Your task to perform on an android device: check the backup settings in the google photos Image 0: 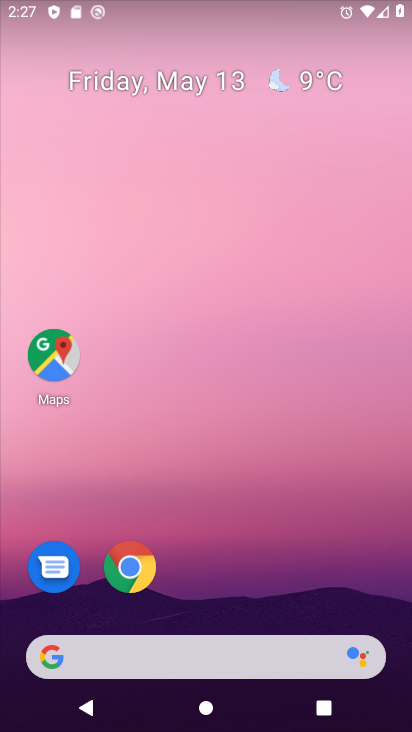
Step 0: drag from (197, 537) to (296, 45)
Your task to perform on an android device: check the backup settings in the google photos Image 1: 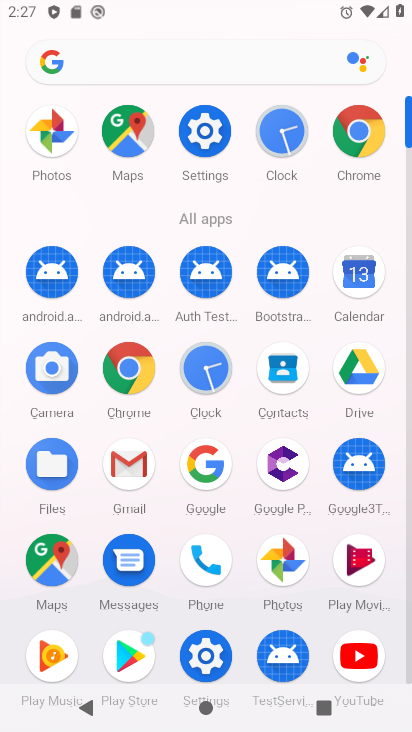
Step 1: click (289, 551)
Your task to perform on an android device: check the backup settings in the google photos Image 2: 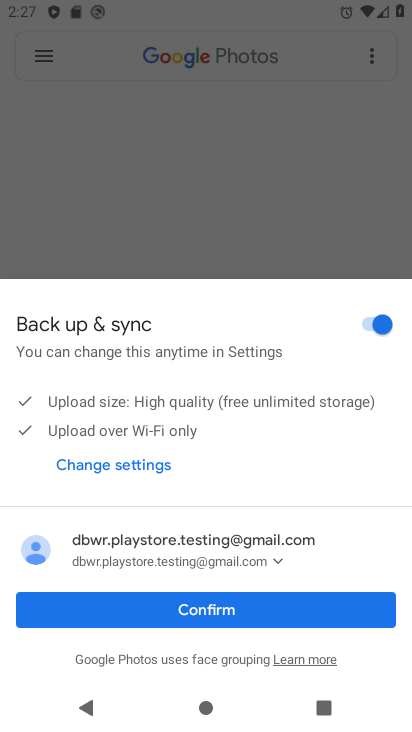
Step 2: click (261, 614)
Your task to perform on an android device: check the backup settings in the google photos Image 3: 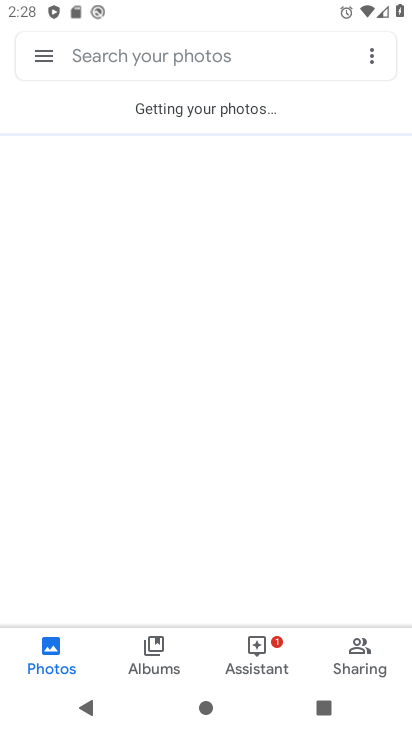
Step 3: click (49, 54)
Your task to perform on an android device: check the backup settings in the google photos Image 4: 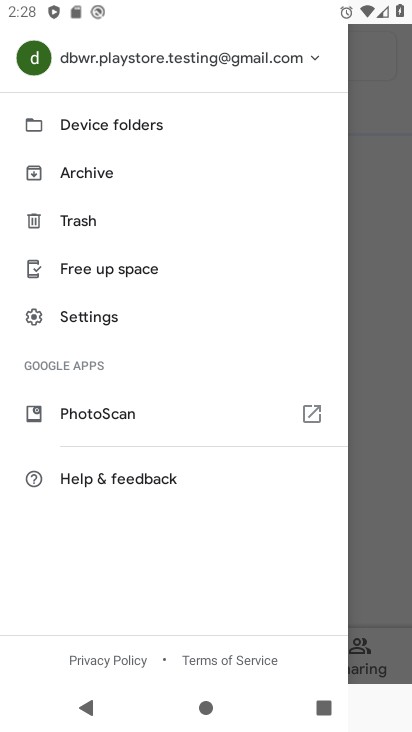
Step 4: click (100, 326)
Your task to perform on an android device: check the backup settings in the google photos Image 5: 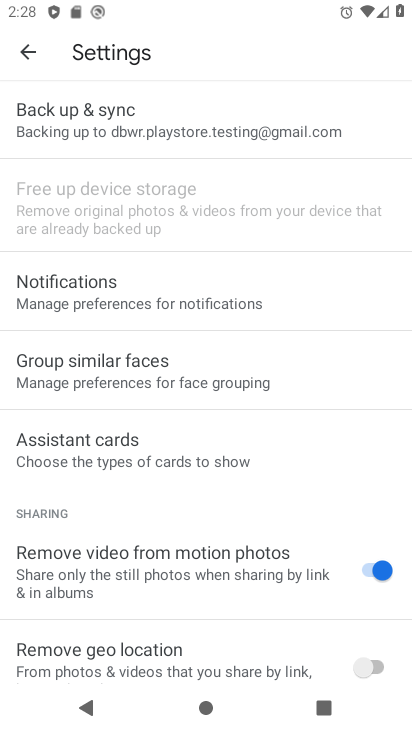
Step 5: click (119, 131)
Your task to perform on an android device: check the backup settings in the google photos Image 6: 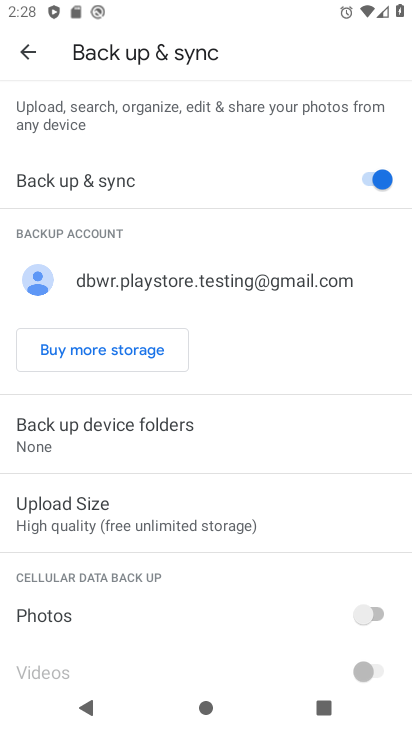
Step 6: task complete